Your task to perform on an android device: turn off improve location accuracy Image 0: 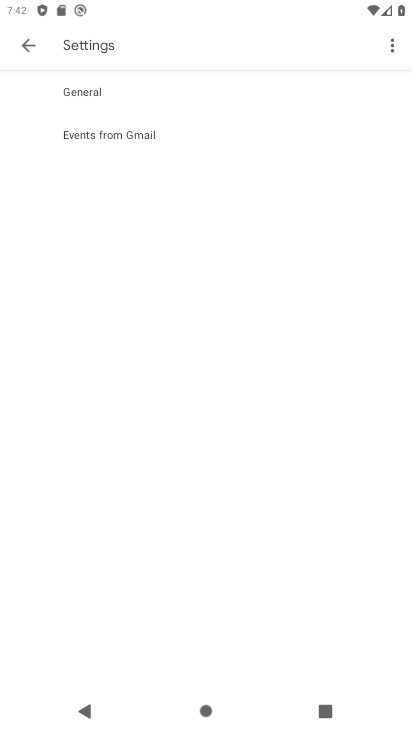
Step 0: press home button
Your task to perform on an android device: turn off improve location accuracy Image 1: 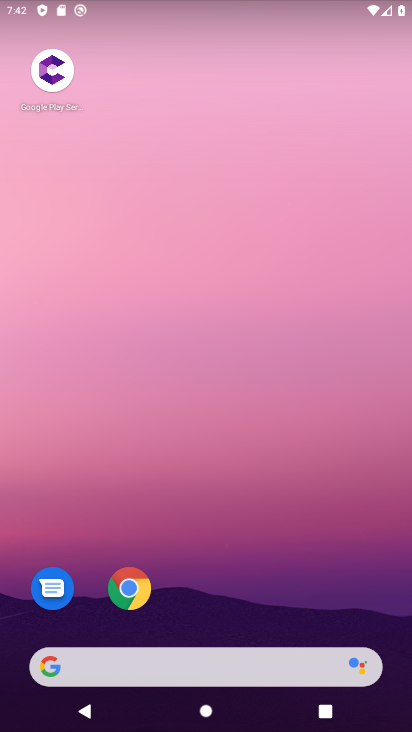
Step 1: click (372, 337)
Your task to perform on an android device: turn off improve location accuracy Image 2: 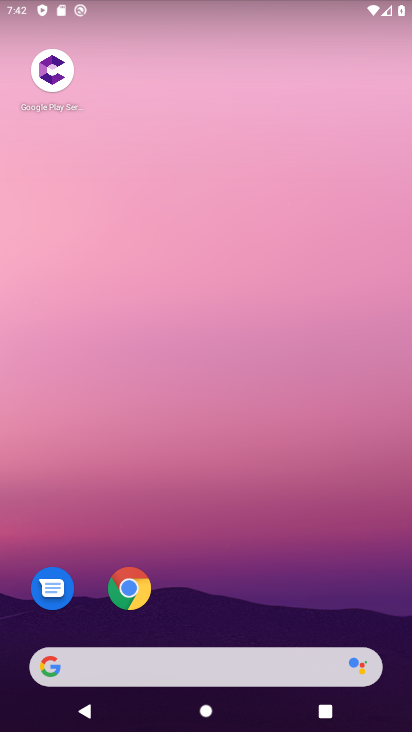
Step 2: drag from (400, 689) to (379, 382)
Your task to perform on an android device: turn off improve location accuracy Image 3: 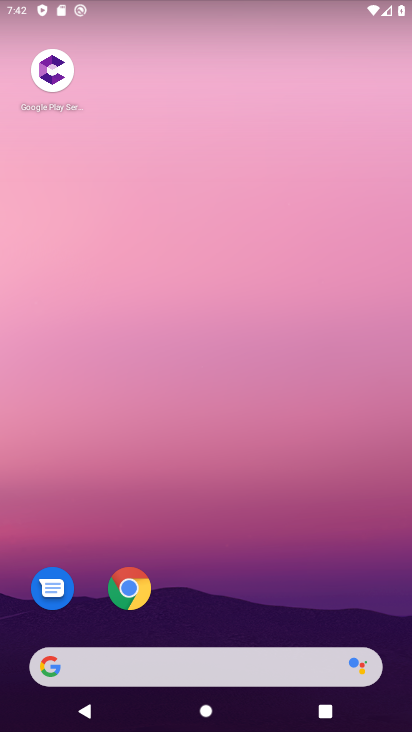
Step 3: drag from (378, 623) to (386, 320)
Your task to perform on an android device: turn off improve location accuracy Image 4: 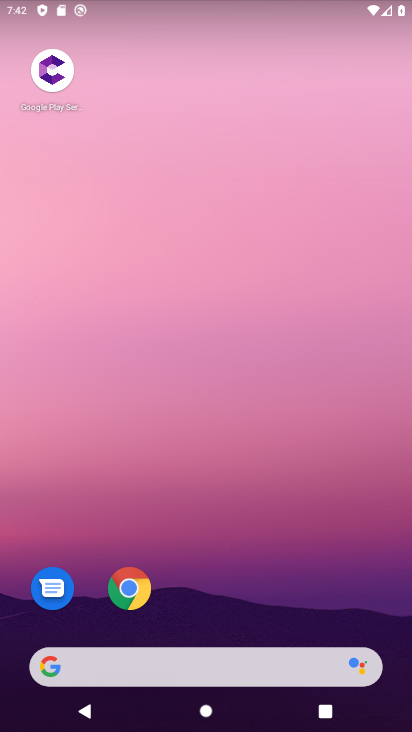
Step 4: drag from (393, 567) to (401, 322)
Your task to perform on an android device: turn off improve location accuracy Image 5: 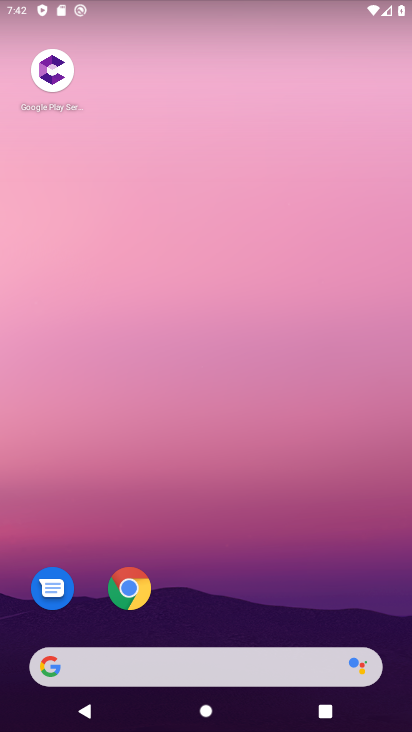
Step 5: drag from (395, 720) to (392, 395)
Your task to perform on an android device: turn off improve location accuracy Image 6: 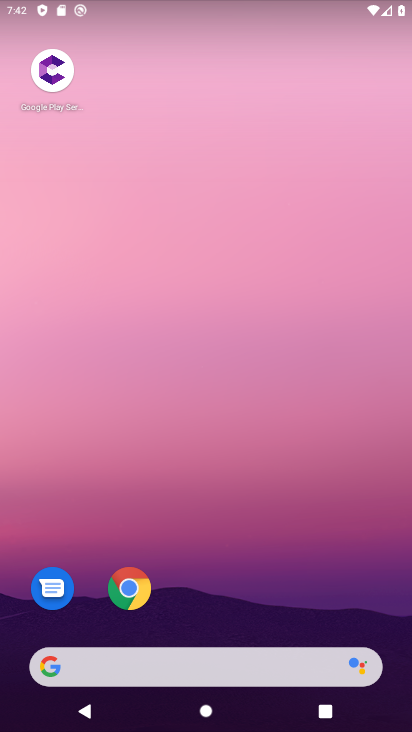
Step 6: drag from (394, 615) to (407, 199)
Your task to perform on an android device: turn off improve location accuracy Image 7: 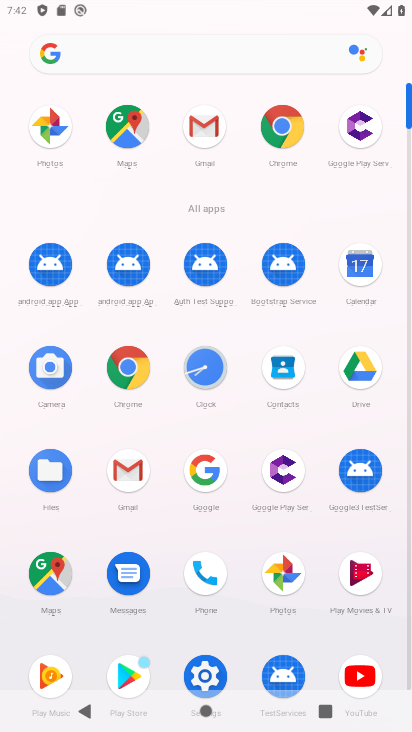
Step 7: click (209, 672)
Your task to perform on an android device: turn off improve location accuracy Image 8: 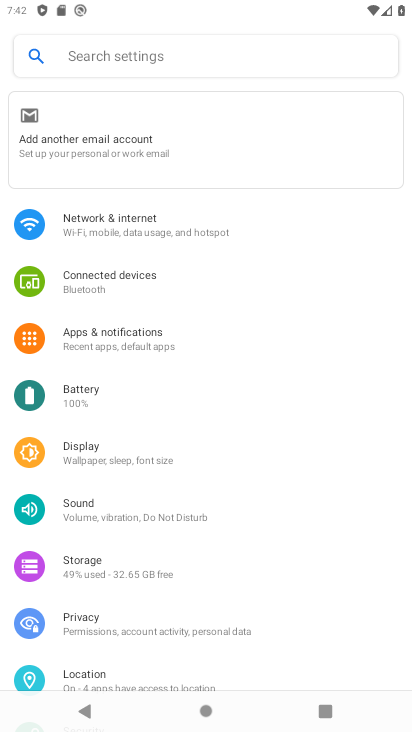
Step 8: click (81, 679)
Your task to perform on an android device: turn off improve location accuracy Image 9: 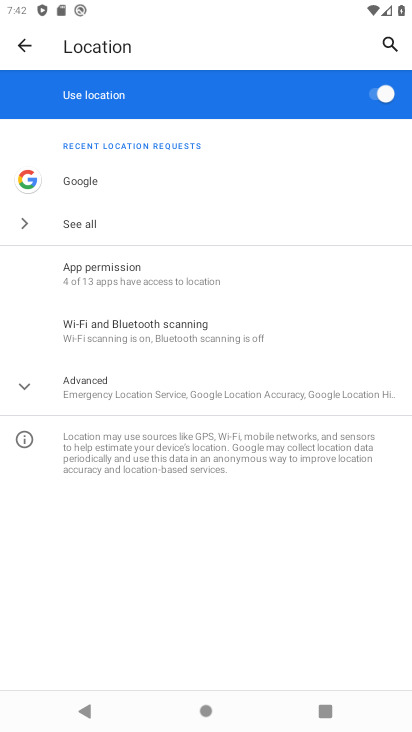
Step 9: click (30, 385)
Your task to perform on an android device: turn off improve location accuracy Image 10: 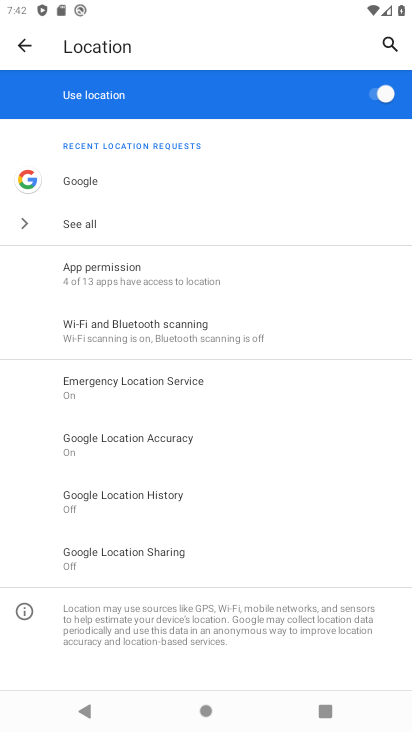
Step 10: click (81, 437)
Your task to perform on an android device: turn off improve location accuracy Image 11: 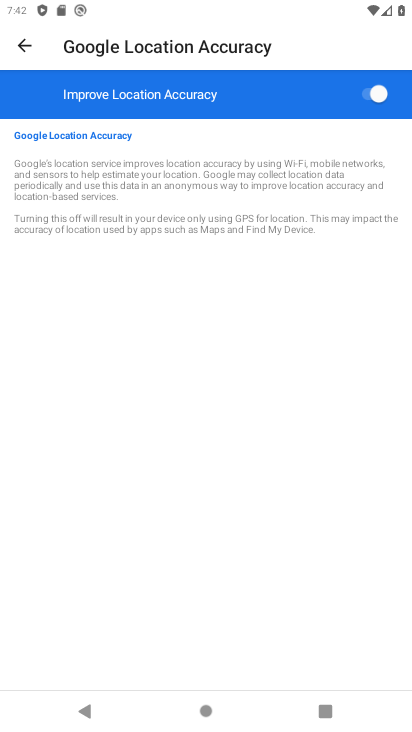
Step 11: click (363, 91)
Your task to perform on an android device: turn off improve location accuracy Image 12: 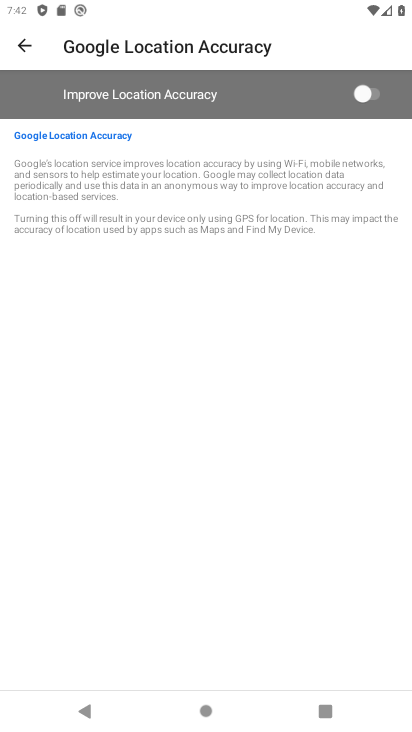
Step 12: task complete